Your task to perform on an android device: install app "Speedtest by Ookla" Image 0: 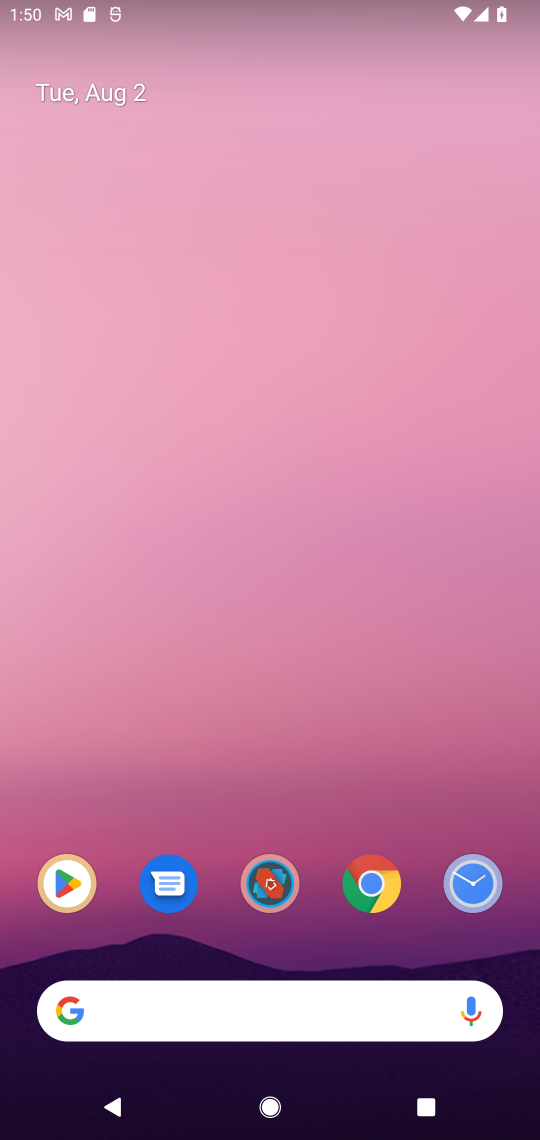
Step 0: press home button
Your task to perform on an android device: install app "Speedtest by Ookla" Image 1: 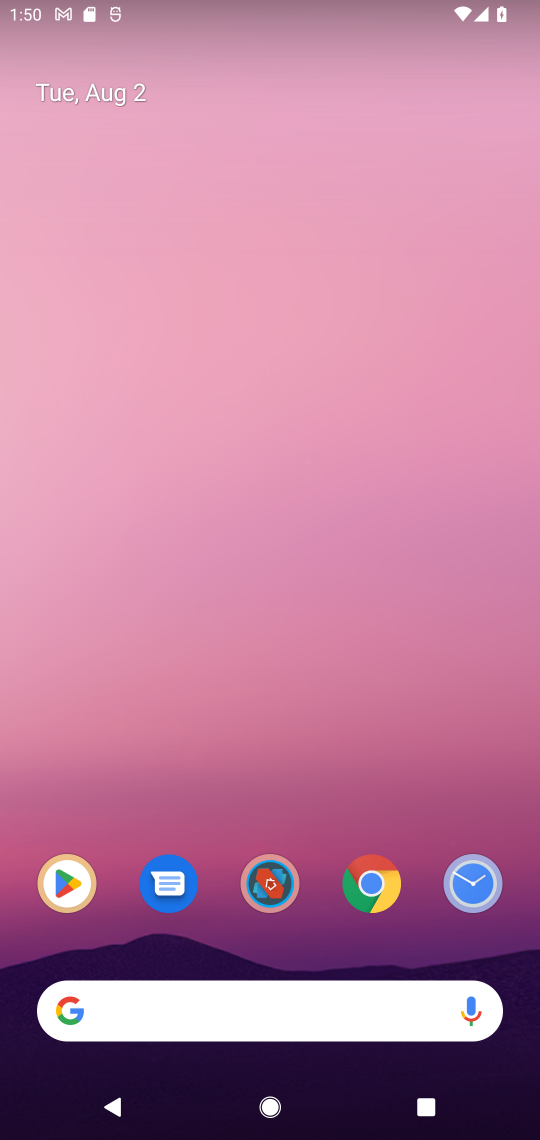
Step 1: click (66, 886)
Your task to perform on an android device: install app "Speedtest by Ookla" Image 2: 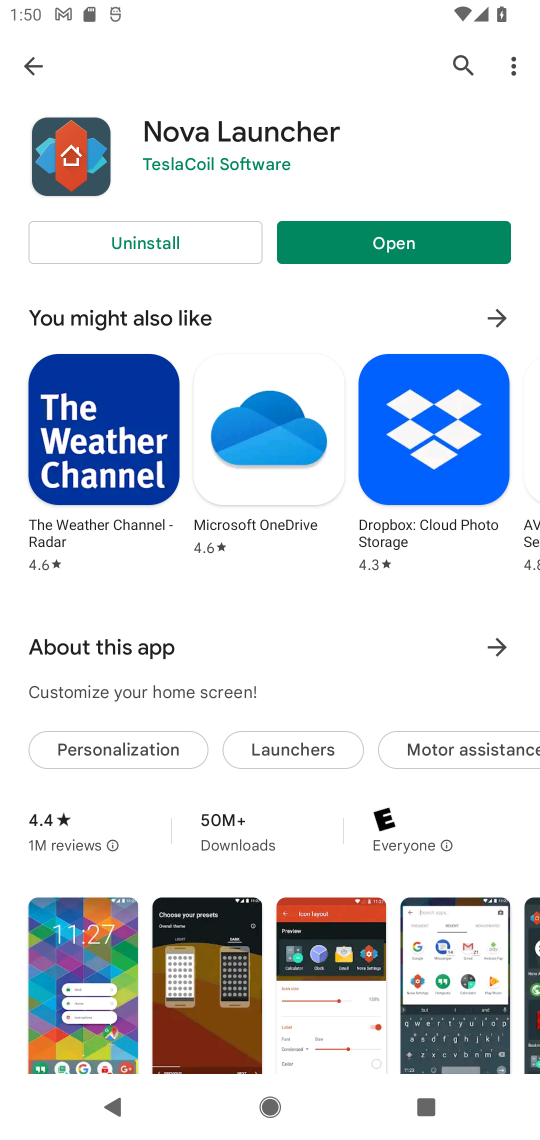
Step 2: click (468, 66)
Your task to perform on an android device: install app "Speedtest by Ookla" Image 3: 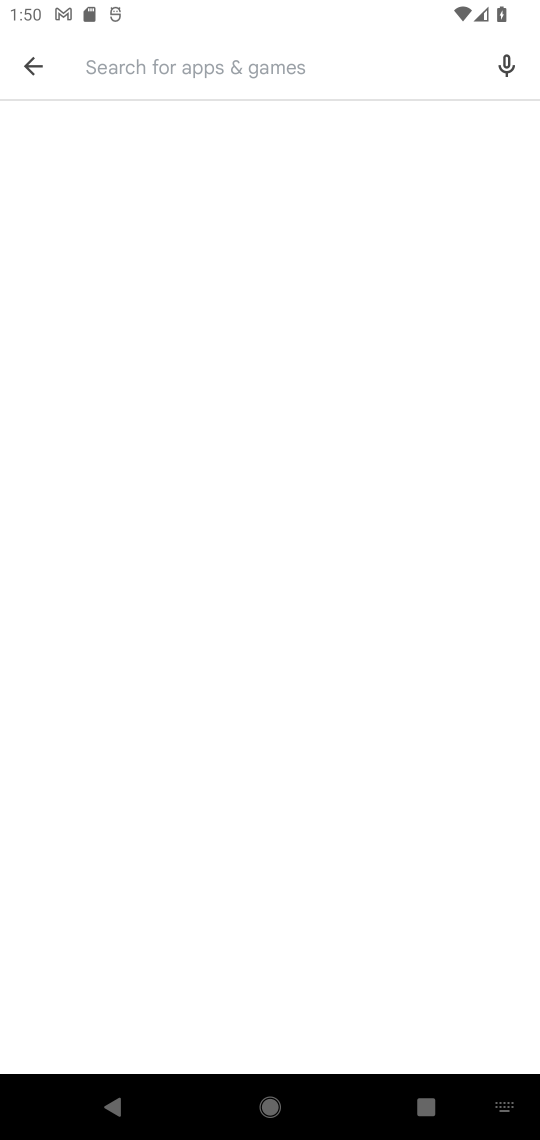
Step 3: type "Speedtest by Ookla"
Your task to perform on an android device: install app "Speedtest by Ookla" Image 4: 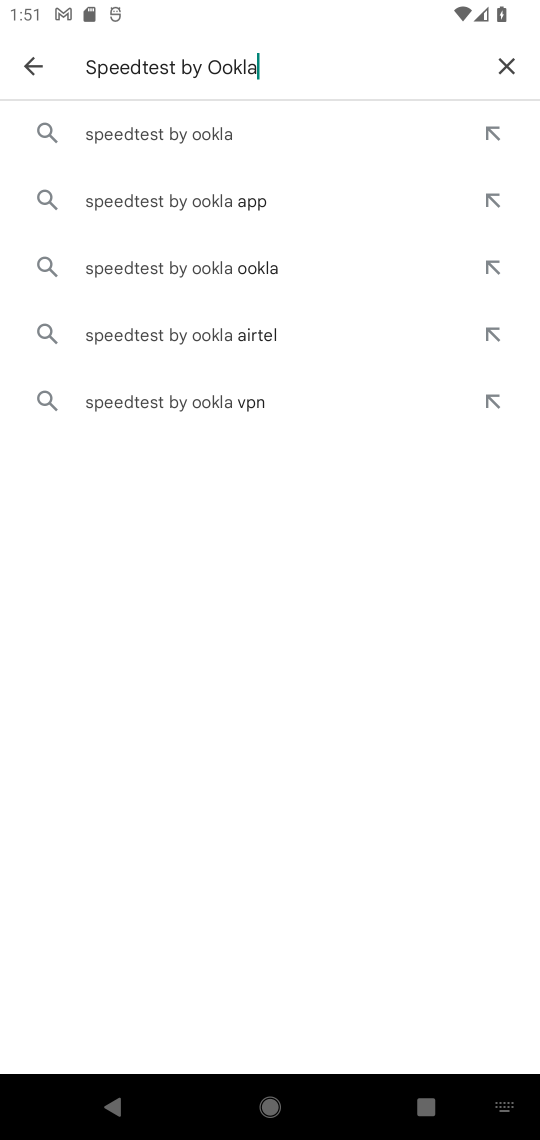
Step 4: click (170, 129)
Your task to perform on an android device: install app "Speedtest by Ookla" Image 5: 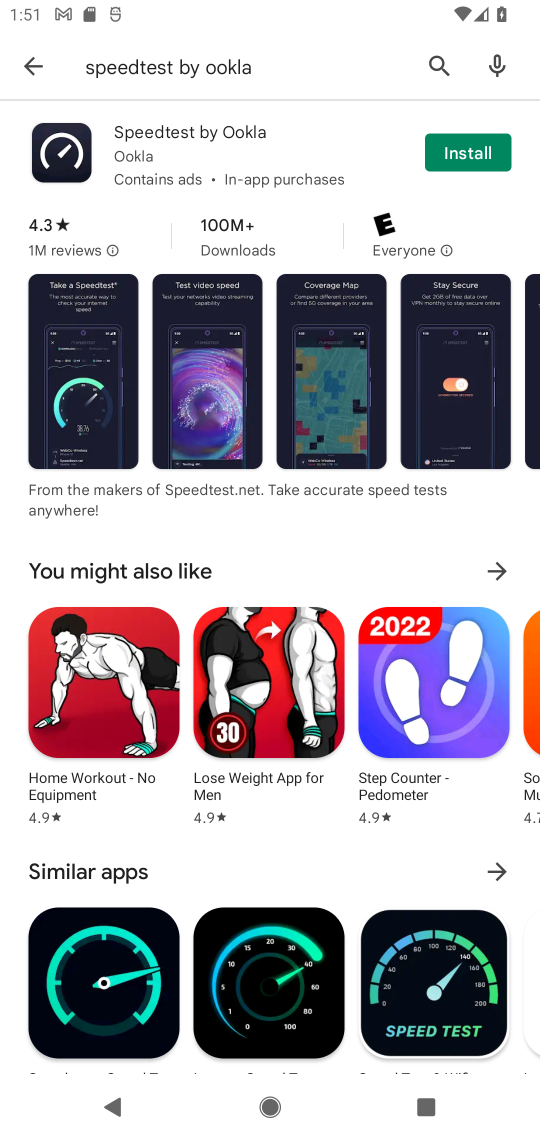
Step 5: click (490, 153)
Your task to perform on an android device: install app "Speedtest by Ookla" Image 6: 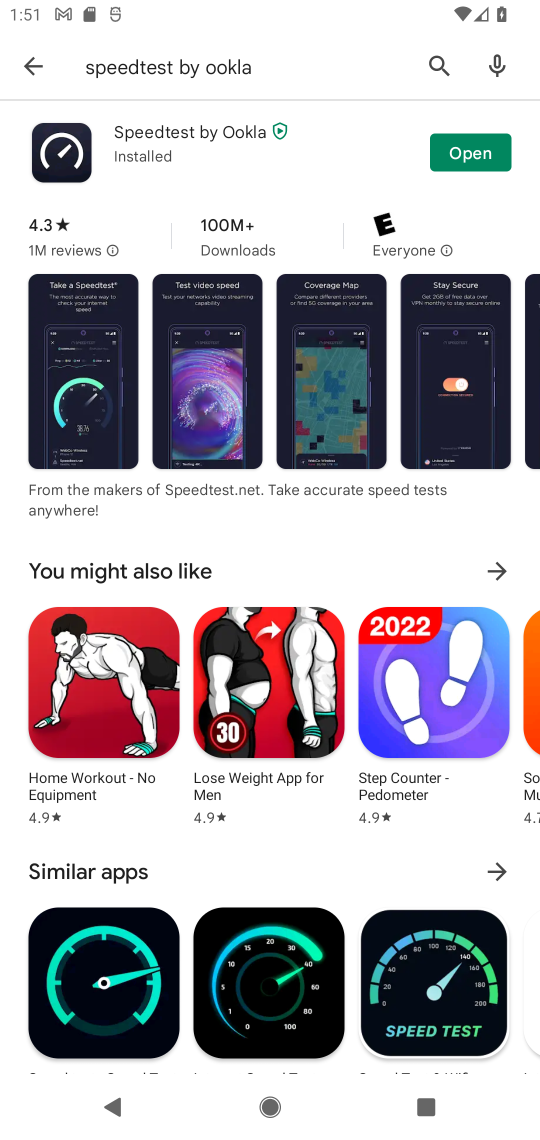
Step 6: task complete